Your task to perform on an android device: see tabs open on other devices in the chrome app Image 0: 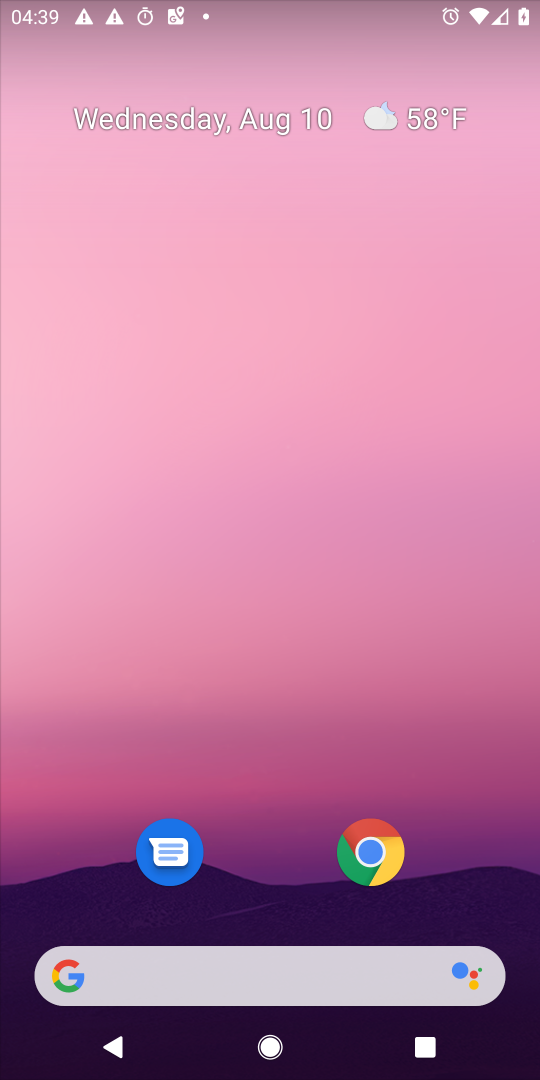
Step 0: drag from (275, 882) to (27, 201)
Your task to perform on an android device: see tabs open on other devices in the chrome app Image 1: 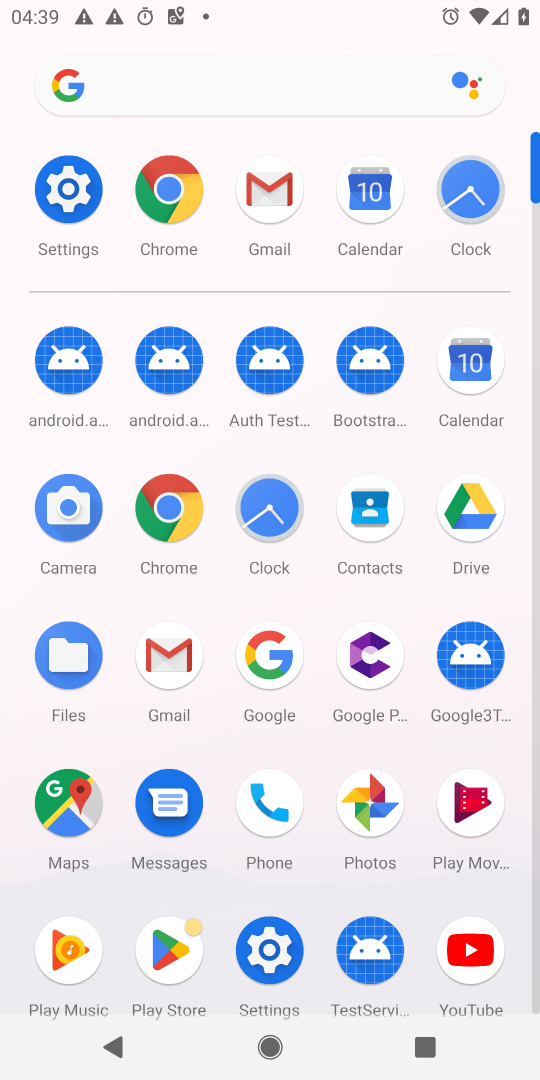
Step 1: click (188, 503)
Your task to perform on an android device: see tabs open on other devices in the chrome app Image 2: 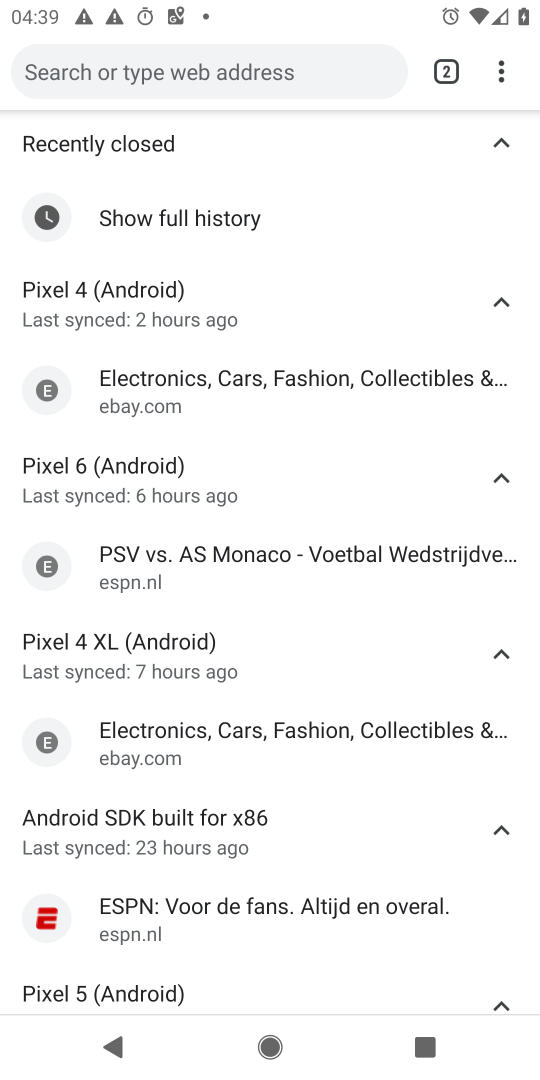
Step 2: task complete